Your task to perform on an android device: See recent photos Image 0: 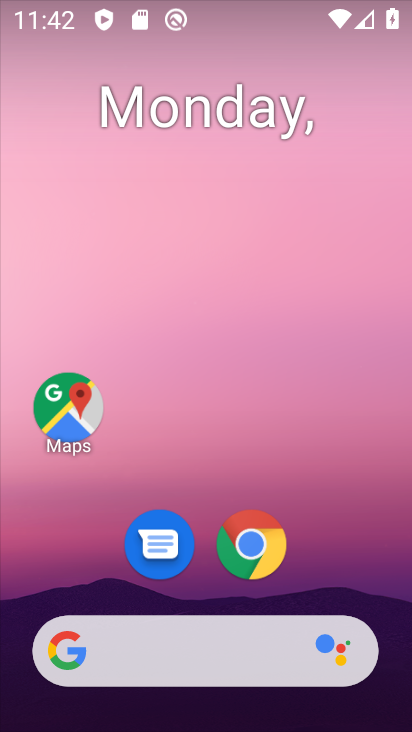
Step 0: drag from (310, 502) to (356, 155)
Your task to perform on an android device: See recent photos Image 1: 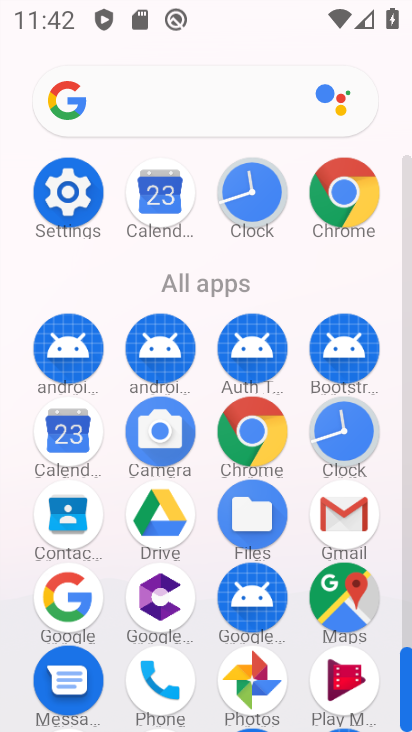
Step 1: drag from (282, 573) to (359, 236)
Your task to perform on an android device: See recent photos Image 2: 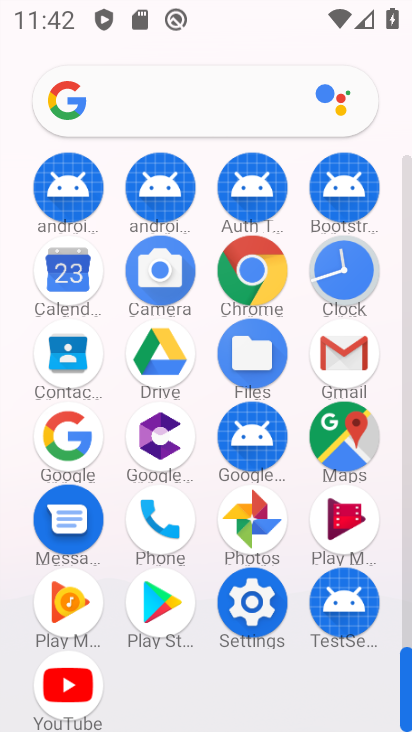
Step 2: click (250, 519)
Your task to perform on an android device: See recent photos Image 3: 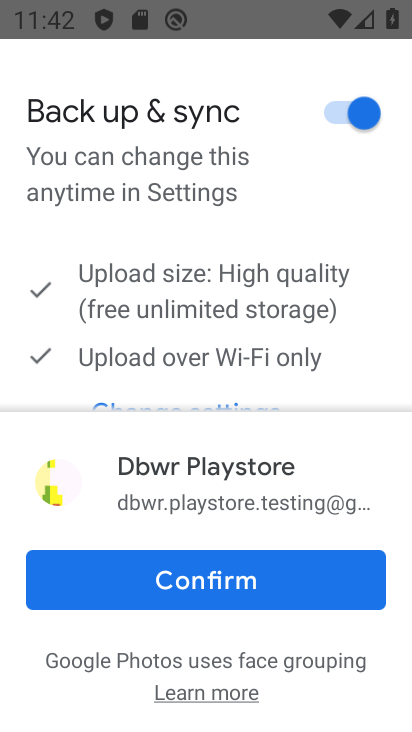
Step 3: click (231, 568)
Your task to perform on an android device: See recent photos Image 4: 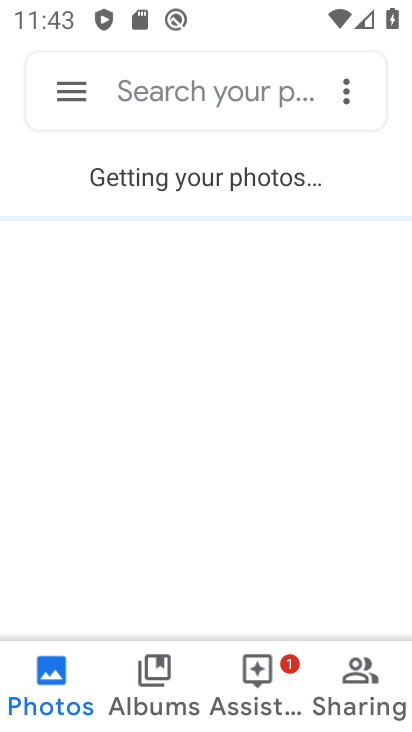
Step 4: click (128, 689)
Your task to perform on an android device: See recent photos Image 5: 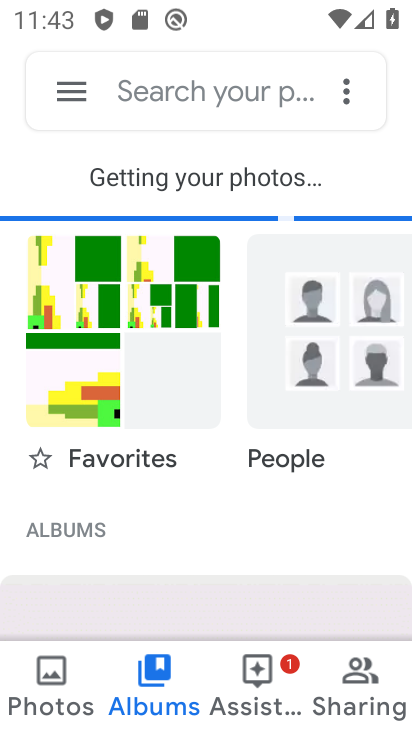
Step 5: click (49, 690)
Your task to perform on an android device: See recent photos Image 6: 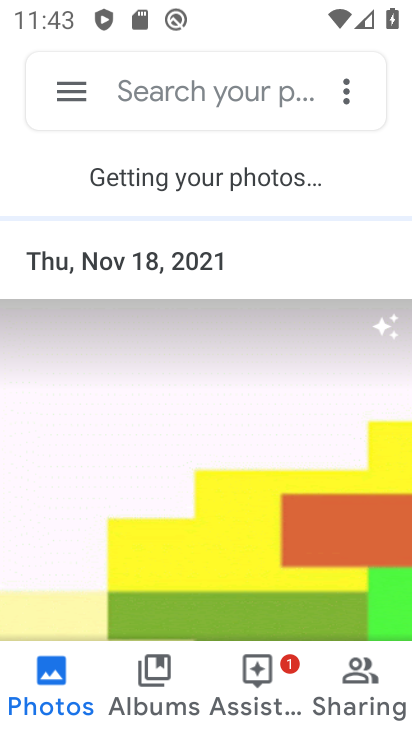
Step 6: task complete